Your task to perform on an android device: Turn on the flashlight Image 0: 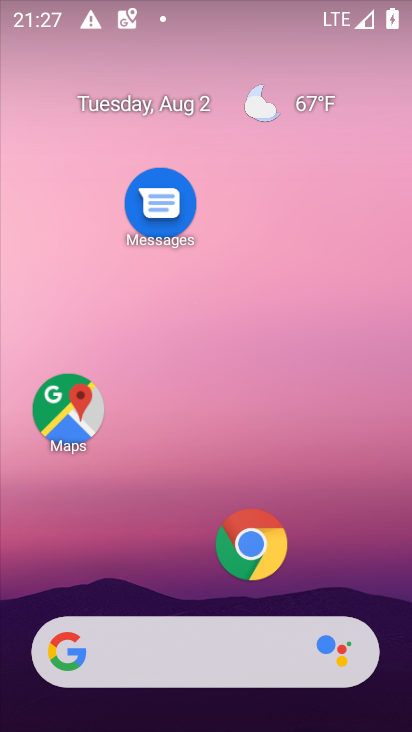
Step 0: drag from (186, 595) to (190, 143)
Your task to perform on an android device: Turn on the flashlight Image 1: 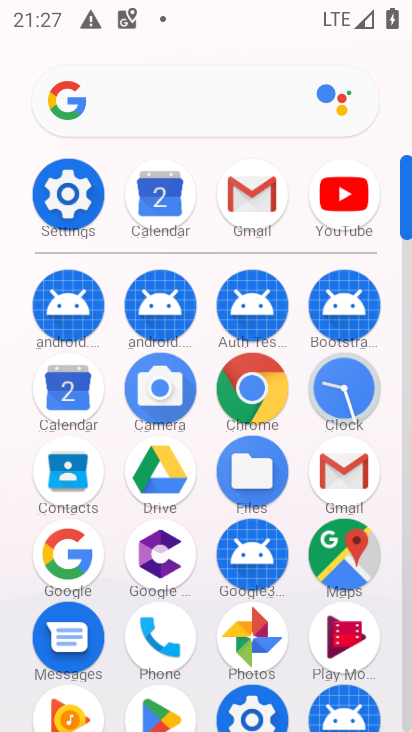
Step 1: click (79, 212)
Your task to perform on an android device: Turn on the flashlight Image 2: 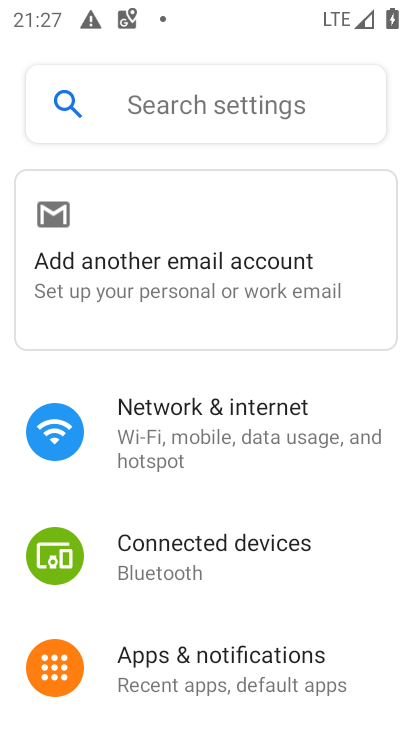
Step 2: task complete